Your task to perform on an android device: What's the weather? Image 0: 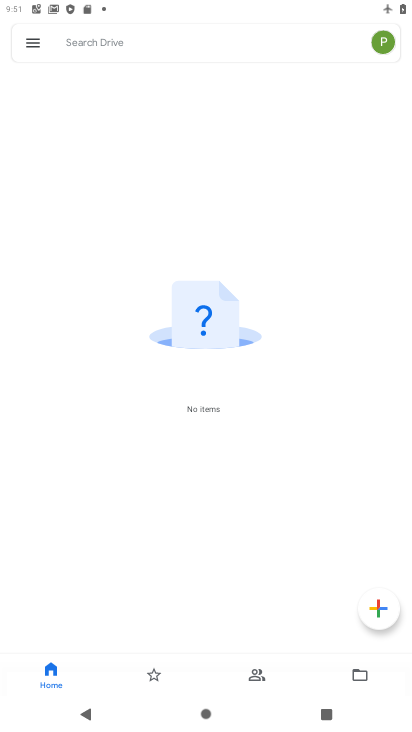
Step 0: press home button
Your task to perform on an android device: What's the weather? Image 1: 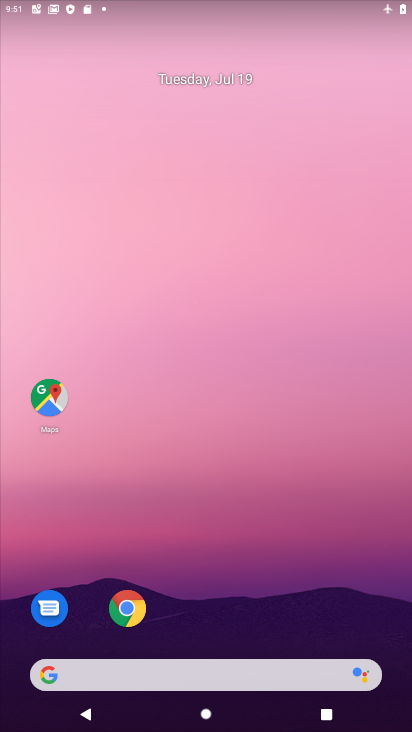
Step 1: drag from (306, 622) to (248, 94)
Your task to perform on an android device: What's the weather? Image 2: 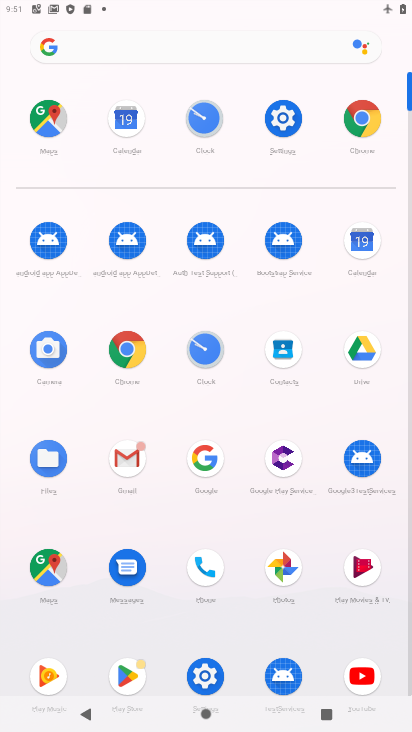
Step 2: click (359, 114)
Your task to perform on an android device: What's the weather? Image 3: 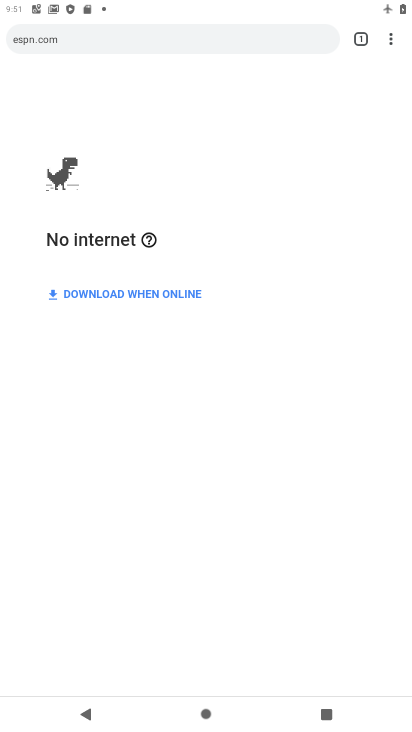
Step 3: click (207, 44)
Your task to perform on an android device: What's the weather? Image 4: 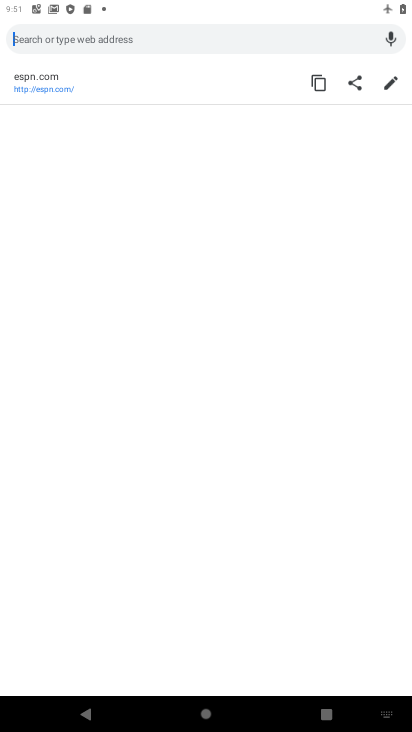
Step 4: type "weather"
Your task to perform on an android device: What's the weather? Image 5: 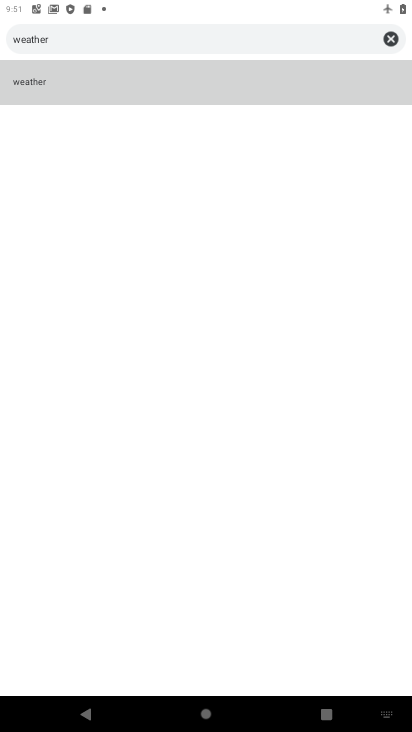
Step 5: click (65, 83)
Your task to perform on an android device: What's the weather? Image 6: 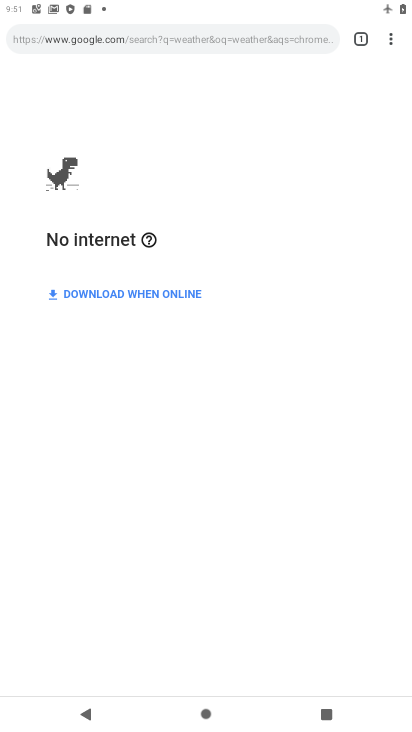
Step 6: task complete